Your task to perform on an android device: change the clock display to digital Image 0: 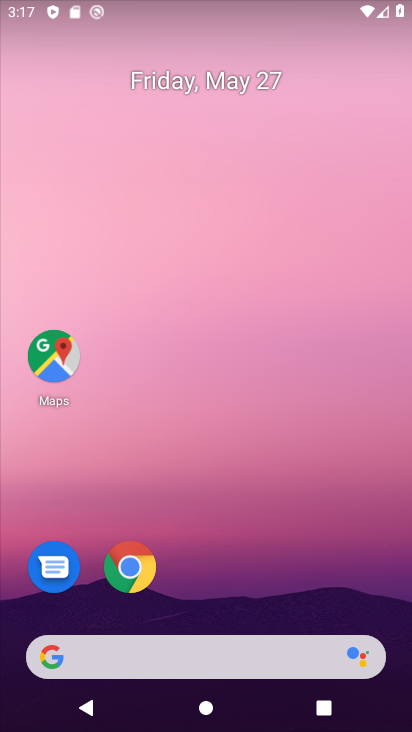
Step 0: drag from (364, 591) to (302, 86)
Your task to perform on an android device: change the clock display to digital Image 1: 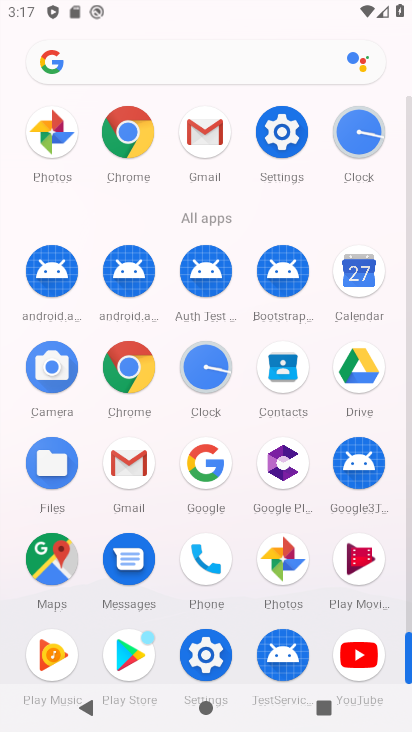
Step 1: click (206, 364)
Your task to perform on an android device: change the clock display to digital Image 2: 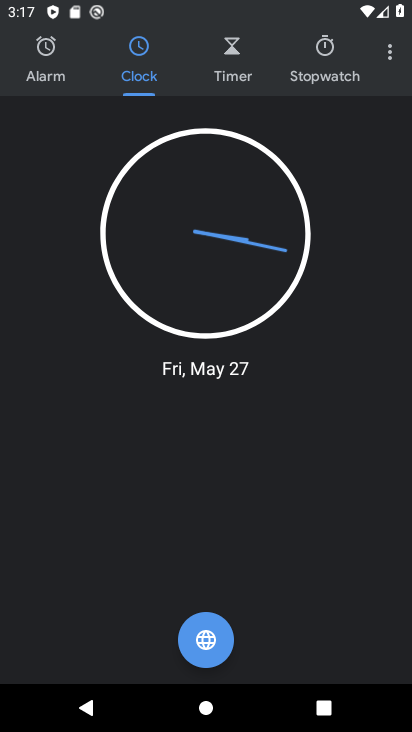
Step 2: click (389, 62)
Your task to perform on an android device: change the clock display to digital Image 3: 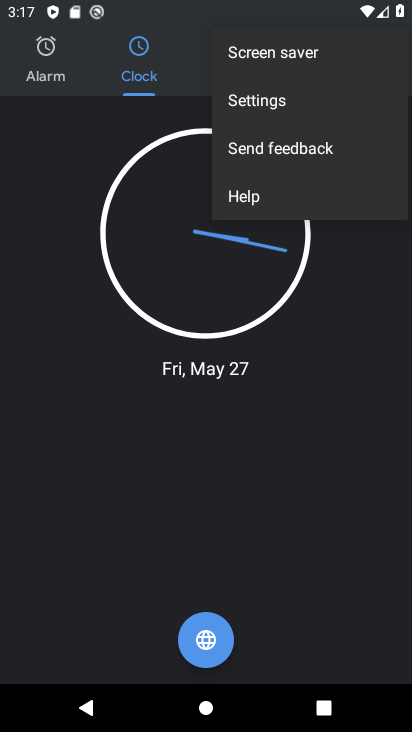
Step 3: click (262, 113)
Your task to perform on an android device: change the clock display to digital Image 4: 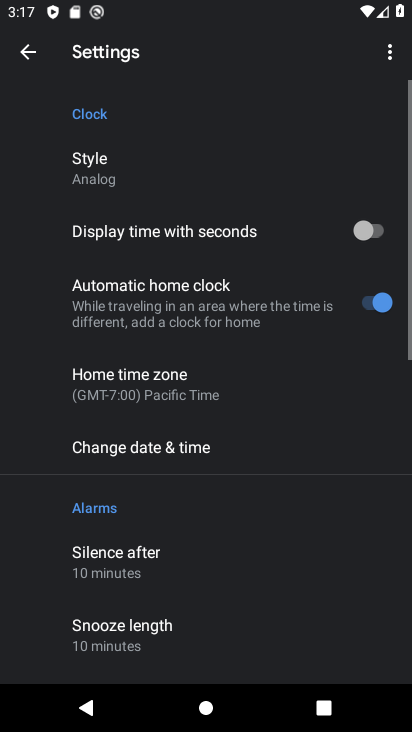
Step 4: click (83, 168)
Your task to perform on an android device: change the clock display to digital Image 5: 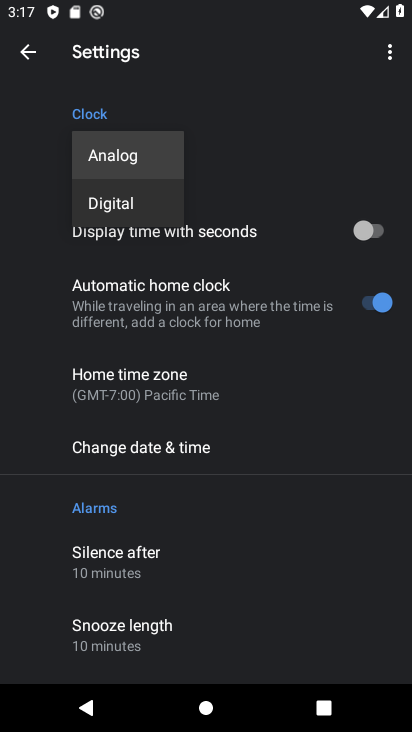
Step 5: click (114, 200)
Your task to perform on an android device: change the clock display to digital Image 6: 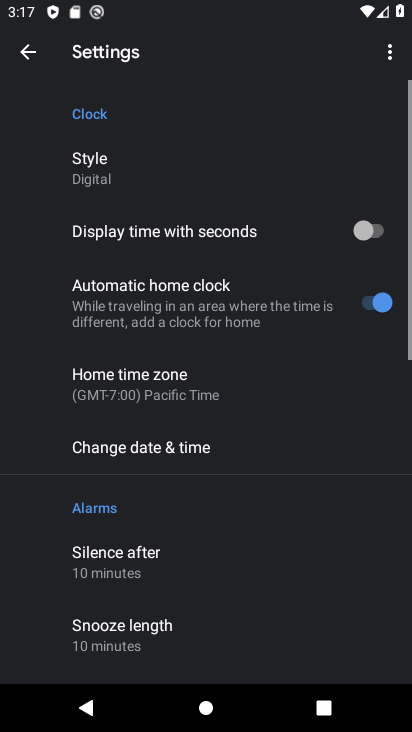
Step 6: task complete